Your task to perform on an android device: find photos in the google photos app Image 0: 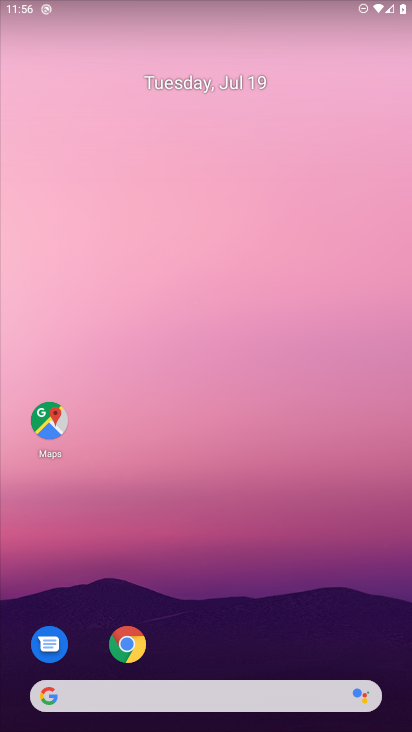
Step 0: drag from (36, 681) to (232, 137)
Your task to perform on an android device: find photos in the google photos app Image 1: 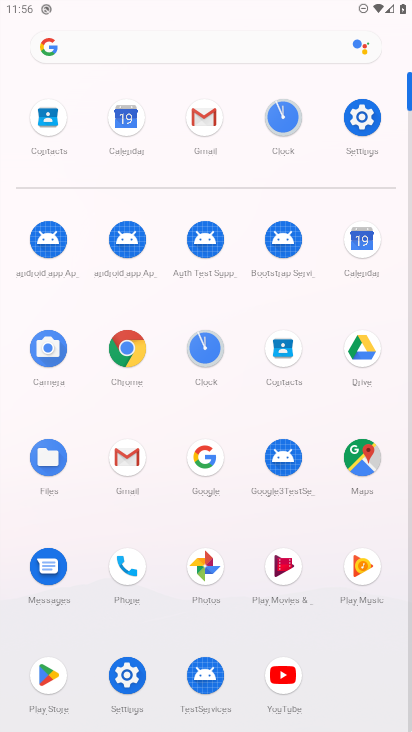
Step 1: click (201, 577)
Your task to perform on an android device: find photos in the google photos app Image 2: 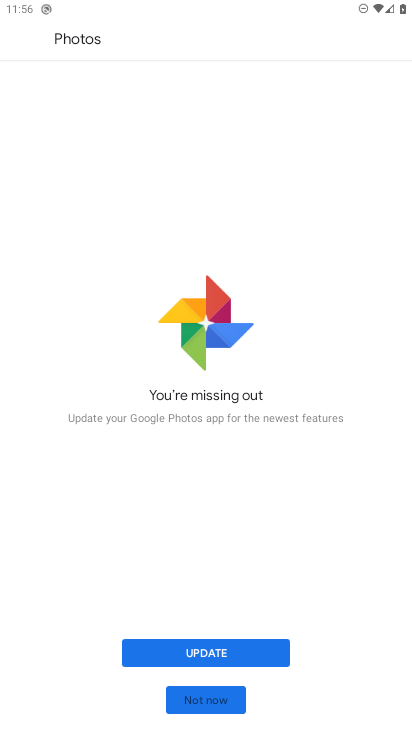
Step 2: click (180, 697)
Your task to perform on an android device: find photos in the google photos app Image 3: 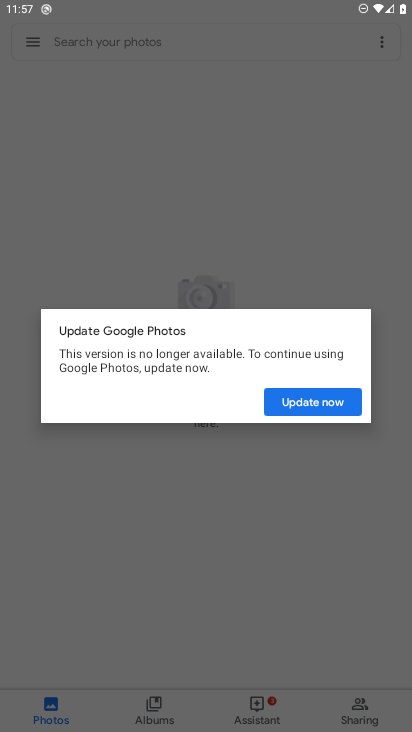
Step 3: click (306, 417)
Your task to perform on an android device: find photos in the google photos app Image 4: 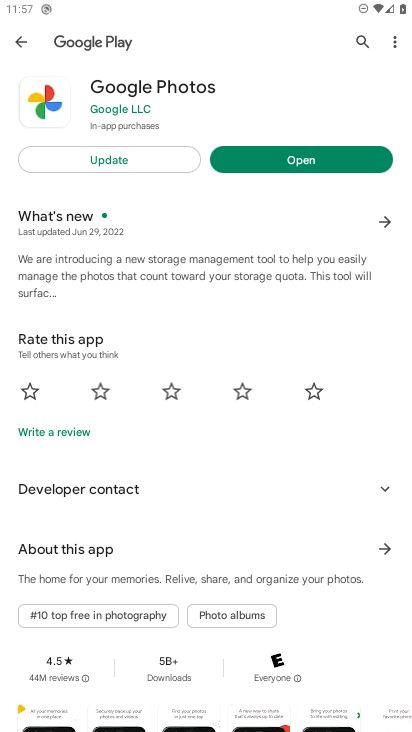
Step 4: task complete